Your task to perform on an android device: open app "VLC for Android" (install if not already installed) Image 0: 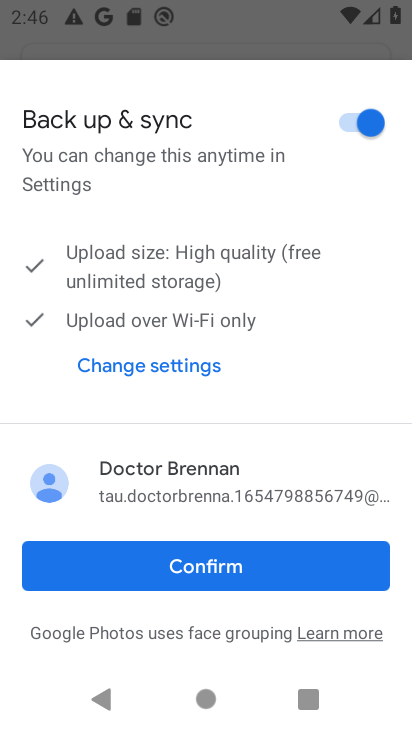
Step 0: press home button
Your task to perform on an android device: open app "VLC for Android" (install if not already installed) Image 1: 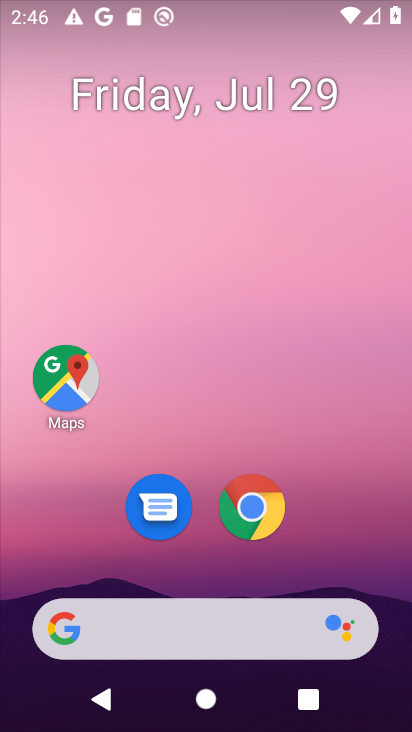
Step 1: click (206, 633)
Your task to perform on an android device: open app "VLC for Android" (install if not already installed) Image 2: 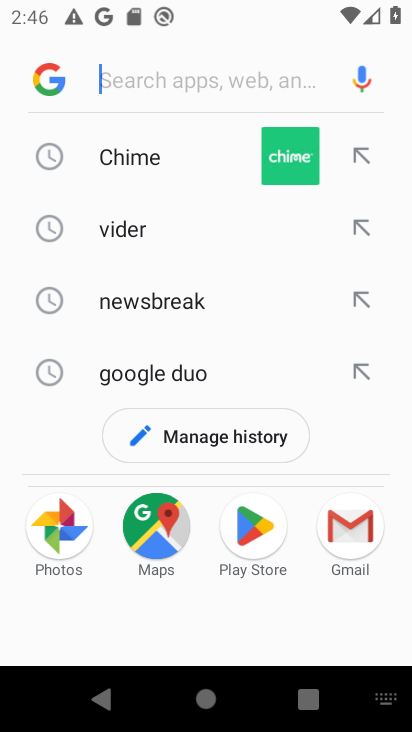
Step 2: type "vlc for anroid"
Your task to perform on an android device: open app "VLC for Android" (install if not already installed) Image 3: 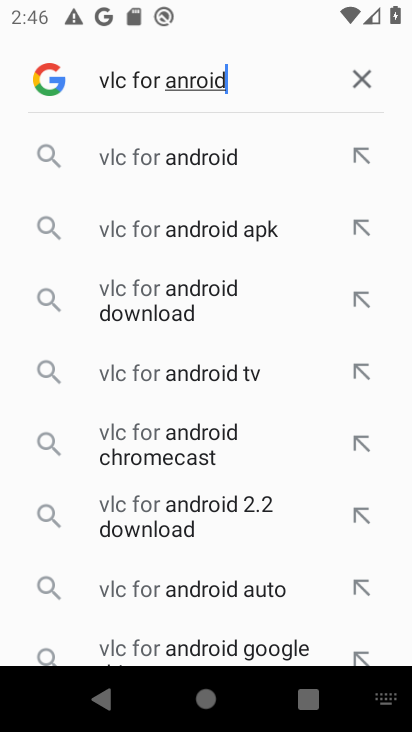
Step 3: click (204, 143)
Your task to perform on an android device: open app "VLC for Android" (install if not already installed) Image 4: 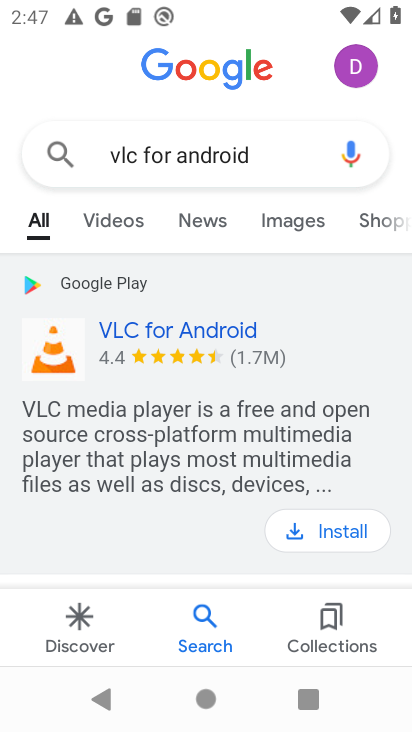
Step 4: click (340, 527)
Your task to perform on an android device: open app "VLC for Android" (install if not already installed) Image 5: 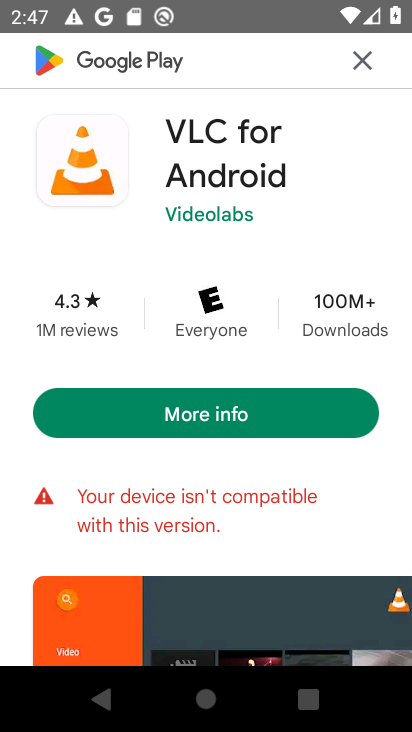
Step 5: task complete